Your task to perform on an android device: set the stopwatch Image 0: 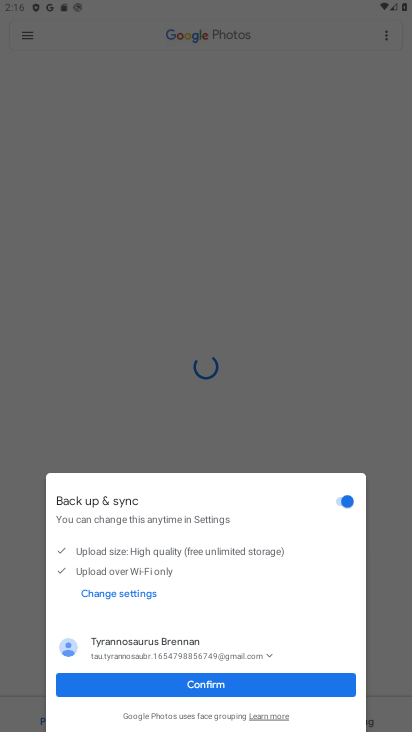
Step 0: press home button
Your task to perform on an android device: set the stopwatch Image 1: 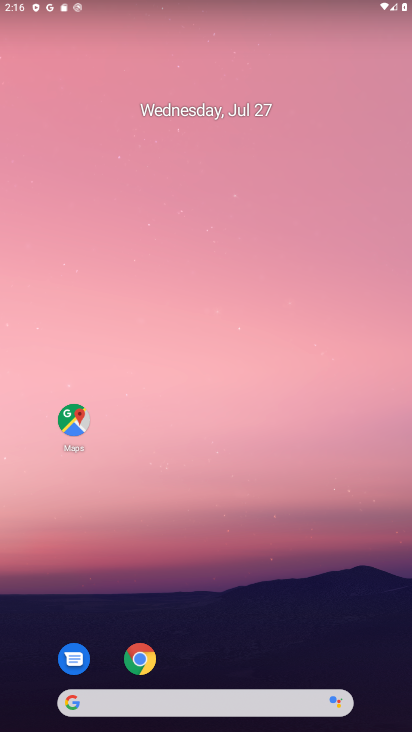
Step 1: drag from (292, 559) to (220, 31)
Your task to perform on an android device: set the stopwatch Image 2: 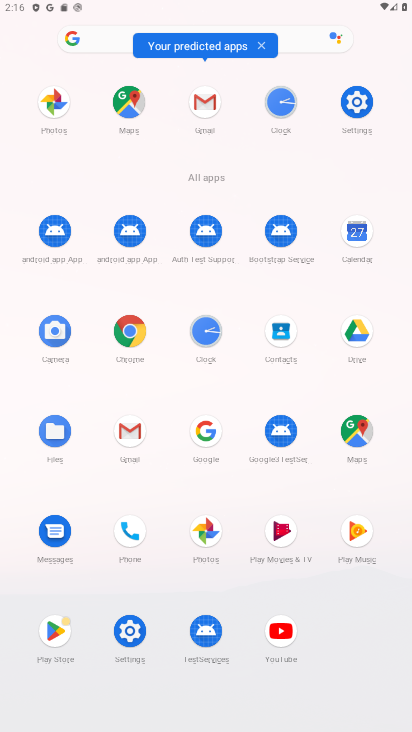
Step 2: click (195, 335)
Your task to perform on an android device: set the stopwatch Image 3: 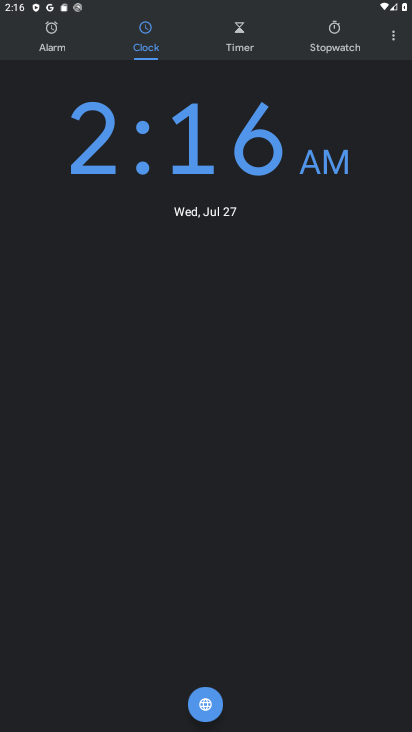
Step 3: click (319, 47)
Your task to perform on an android device: set the stopwatch Image 4: 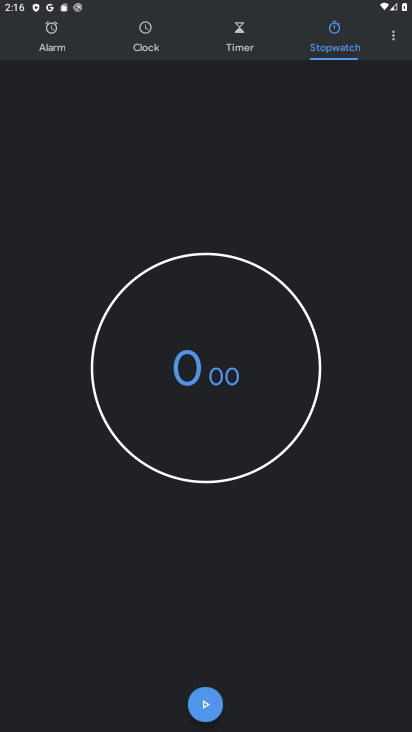
Step 4: click (206, 697)
Your task to perform on an android device: set the stopwatch Image 5: 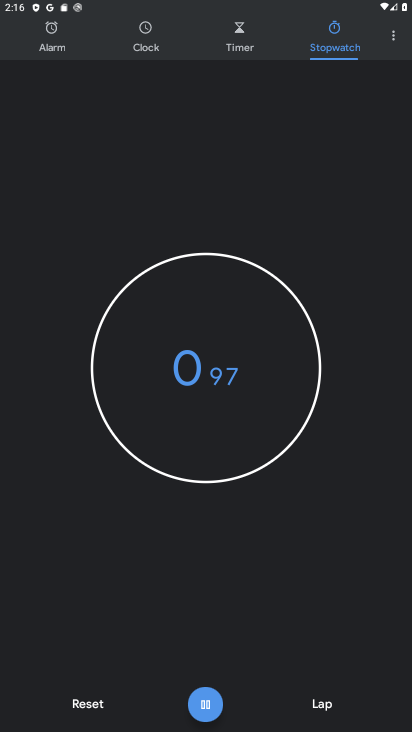
Step 5: task complete